Your task to perform on an android device: Add "usb-a to usb-b" to the cart on ebay.com Image 0: 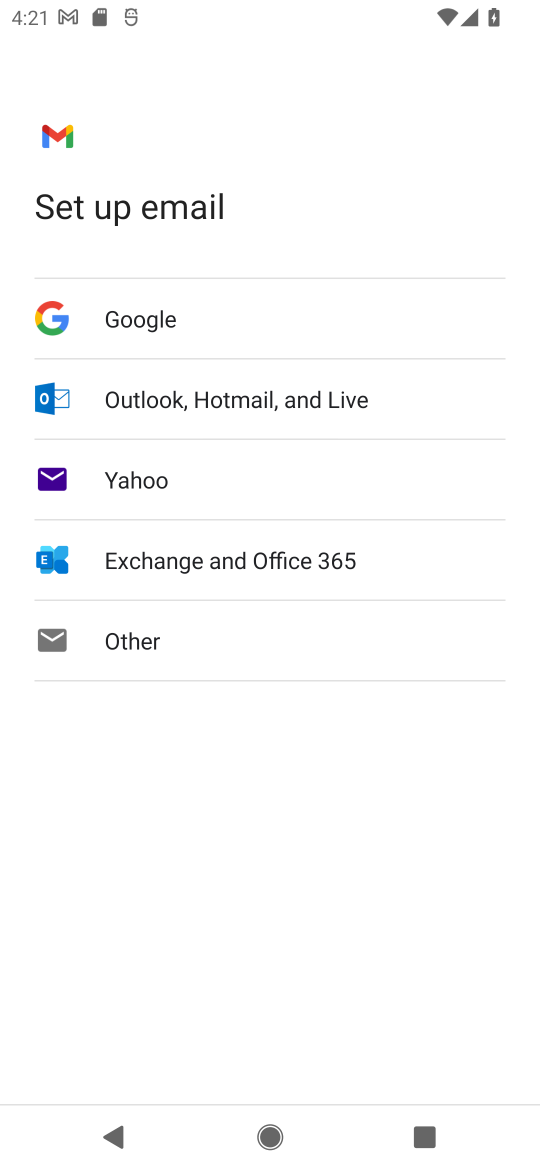
Step 0: press home button
Your task to perform on an android device: Add "usb-a to usb-b" to the cart on ebay.com Image 1: 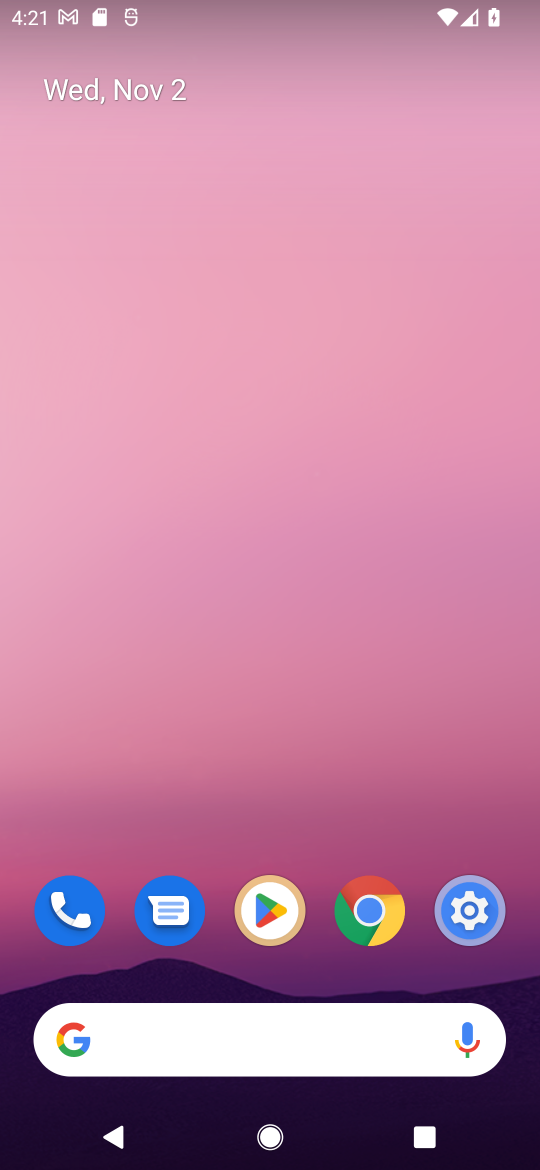
Step 1: click (251, 1017)
Your task to perform on an android device: Add "usb-a to usb-b" to the cart on ebay.com Image 2: 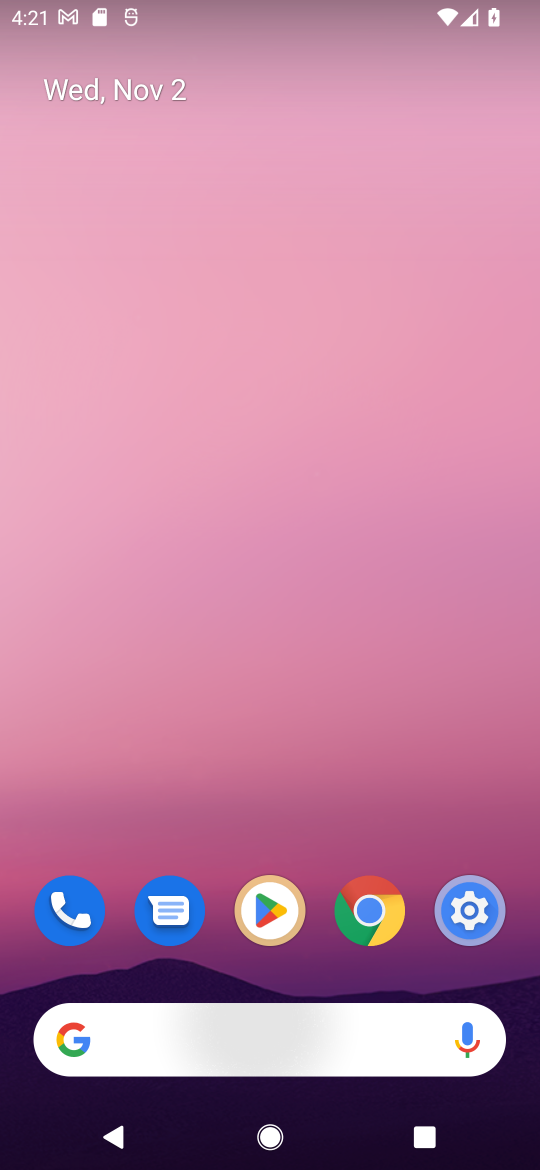
Step 2: click (249, 1018)
Your task to perform on an android device: Add "usb-a to usb-b" to the cart on ebay.com Image 3: 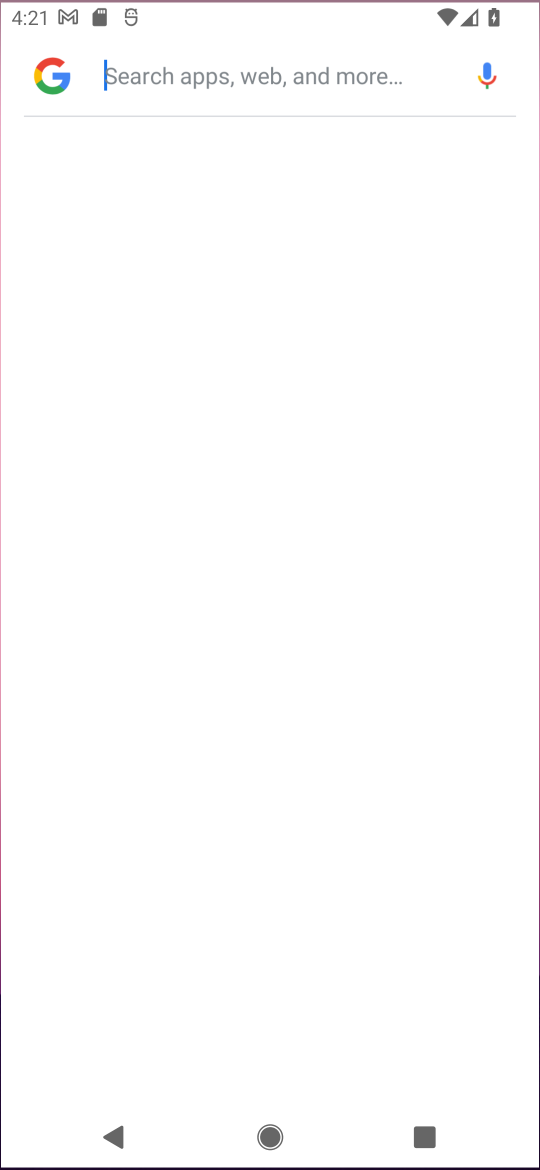
Step 3: click (249, 1045)
Your task to perform on an android device: Add "usb-a to usb-b" to the cart on ebay.com Image 4: 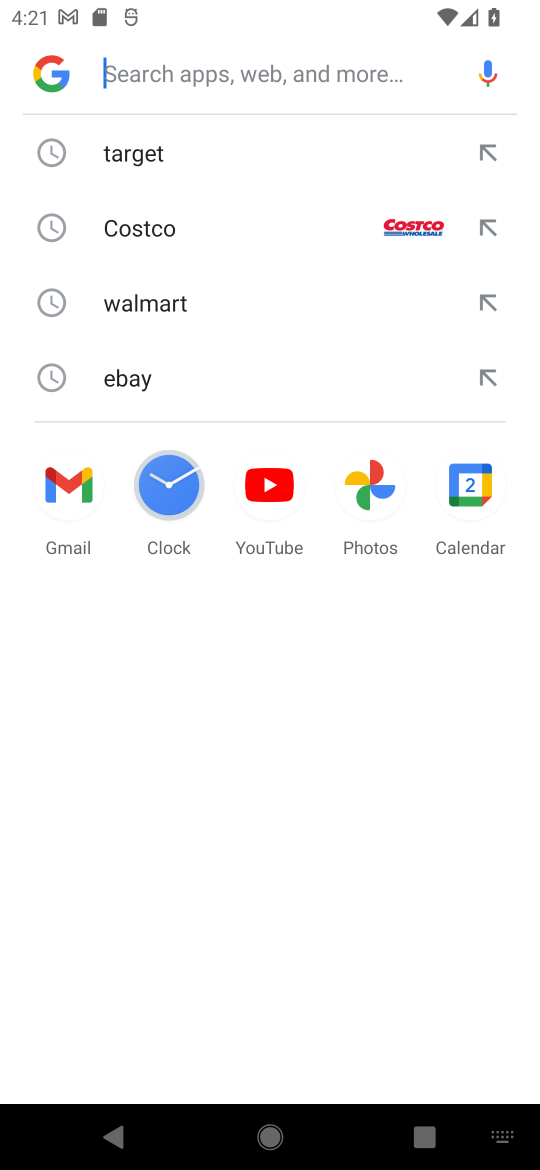
Step 4: type "ebay.com"
Your task to perform on an android device: Add "usb-a to usb-b" to the cart on ebay.com Image 5: 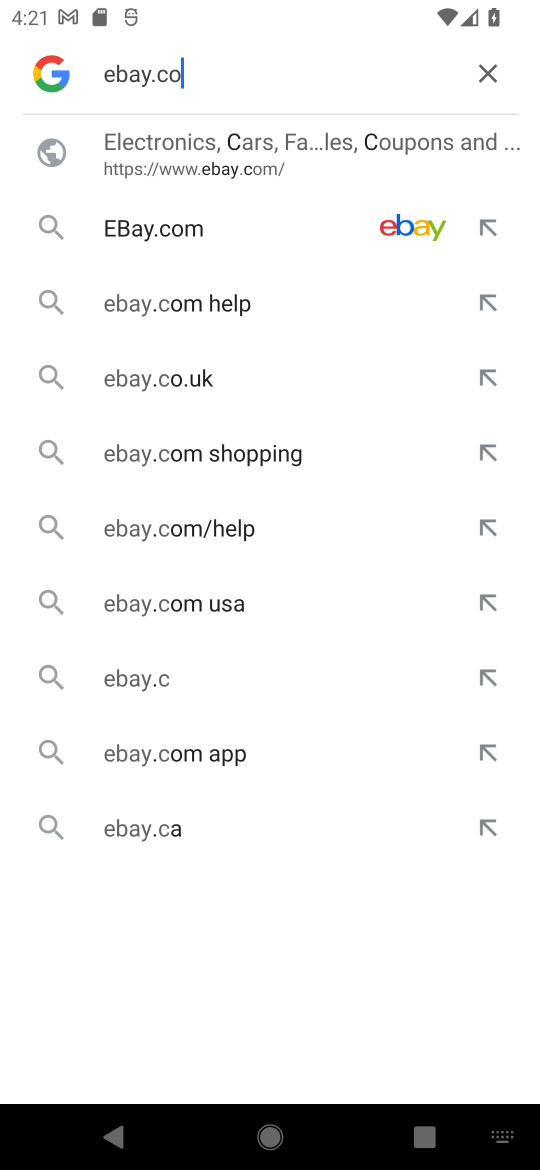
Step 5: type ""
Your task to perform on an android device: Add "usb-a to usb-b" to the cart on ebay.com Image 6: 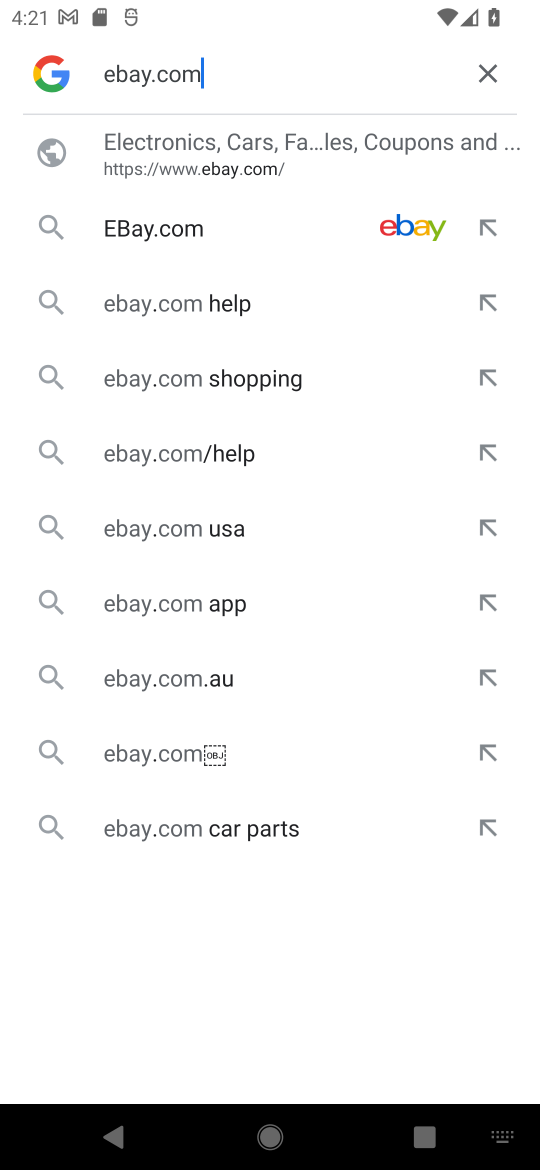
Step 6: press enter
Your task to perform on an android device: Add "usb-a to usb-b" to the cart on ebay.com Image 7: 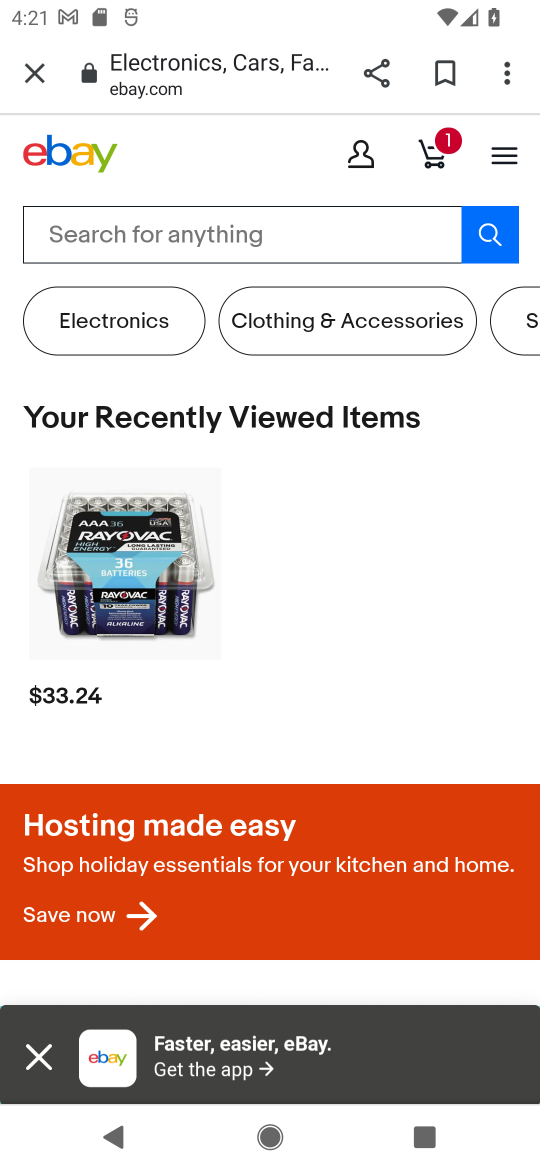
Step 7: click (210, 242)
Your task to perform on an android device: Add "usb-a to usb-b" to the cart on ebay.com Image 8: 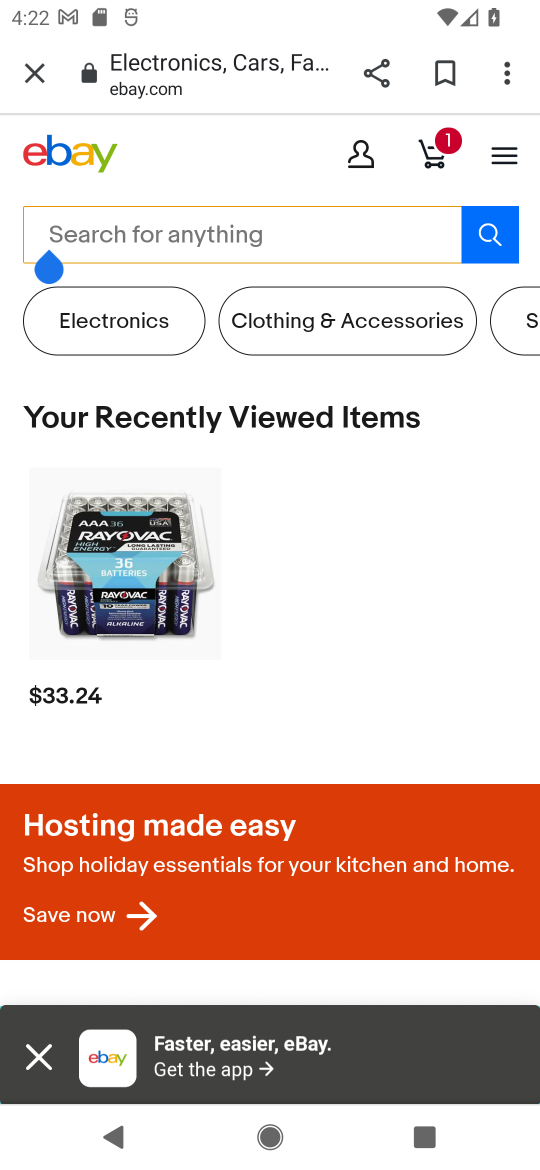
Step 8: type "usb-a to usb-b"
Your task to perform on an android device: Add "usb-a to usb-b" to the cart on ebay.com Image 9: 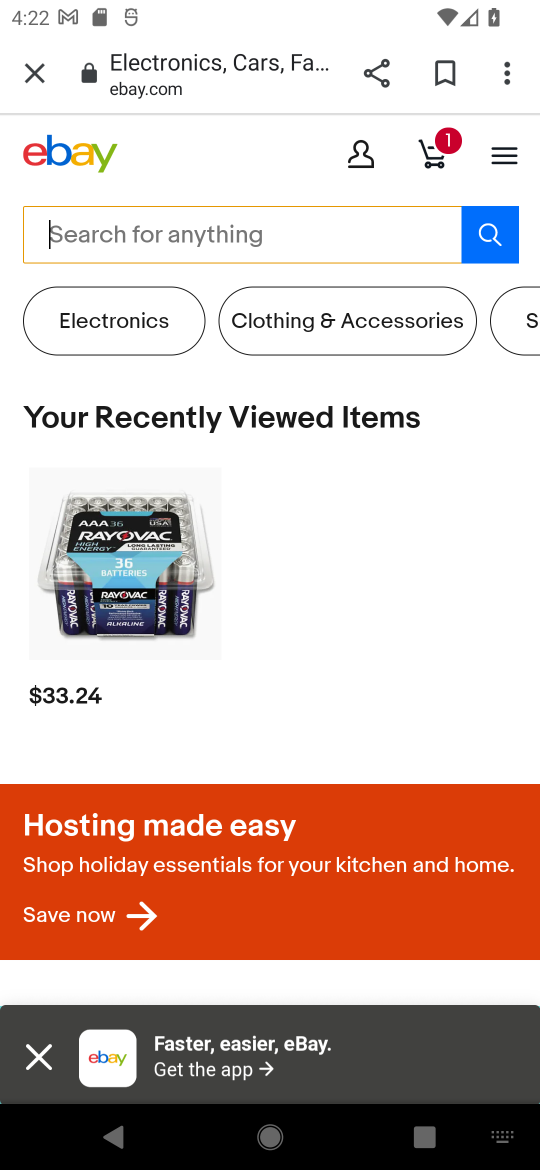
Step 9: type ""
Your task to perform on an android device: Add "usb-a to usb-b" to the cart on ebay.com Image 10: 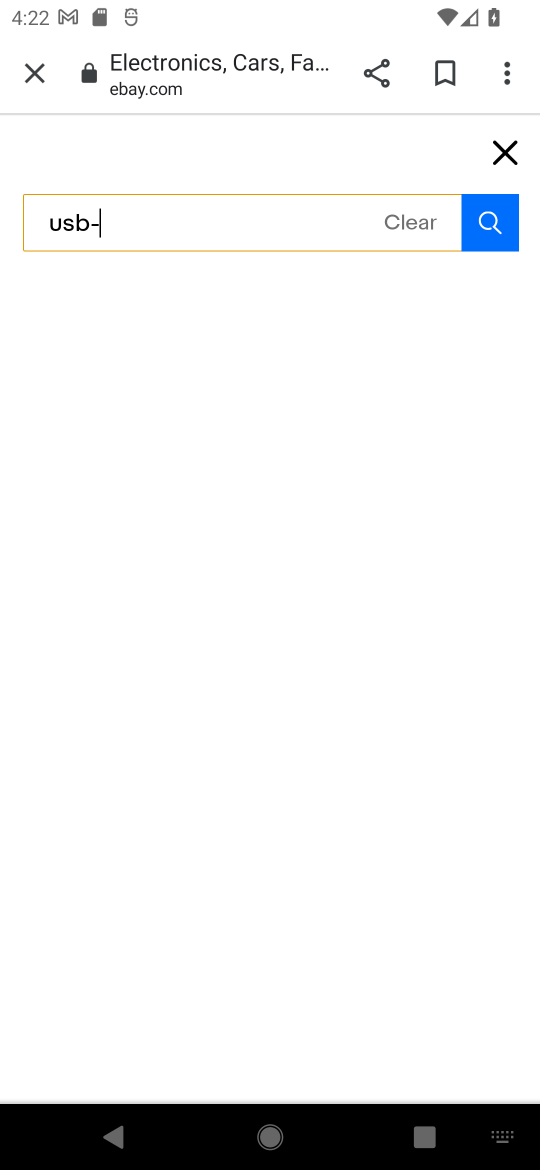
Step 10: press enter
Your task to perform on an android device: Add "usb-a to usb-b" to the cart on ebay.com Image 11: 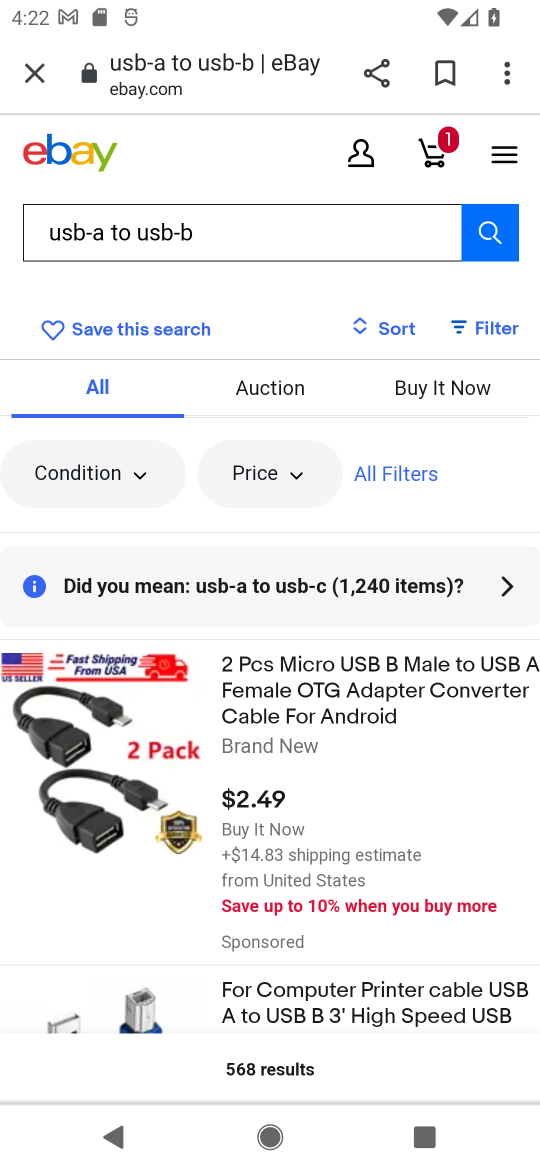
Step 11: click (342, 667)
Your task to perform on an android device: Add "usb-a to usb-b" to the cart on ebay.com Image 12: 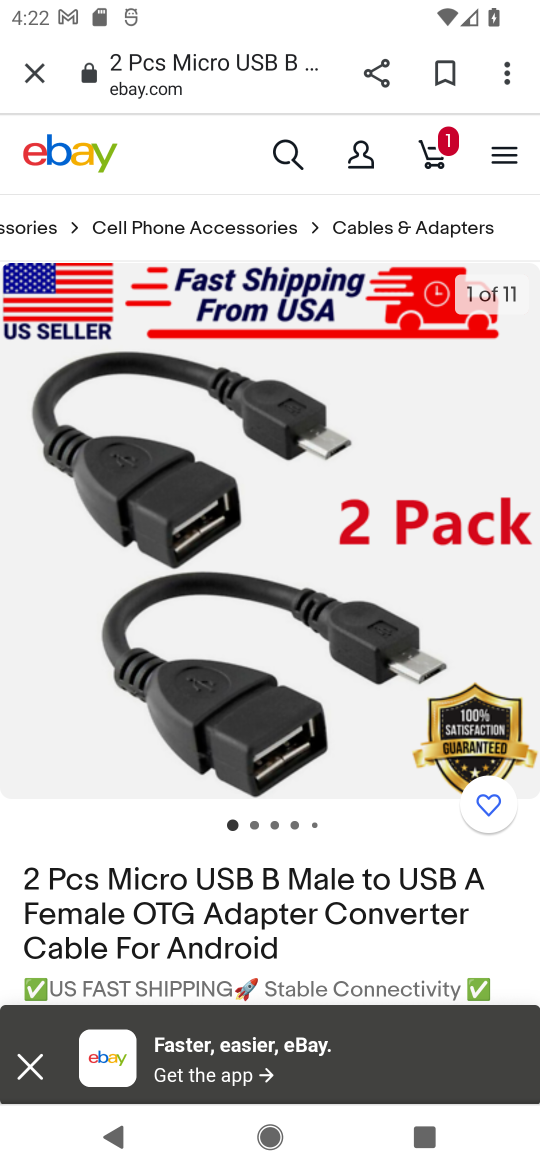
Step 12: drag from (229, 894) to (190, 400)
Your task to perform on an android device: Add "usb-a to usb-b" to the cart on ebay.com Image 13: 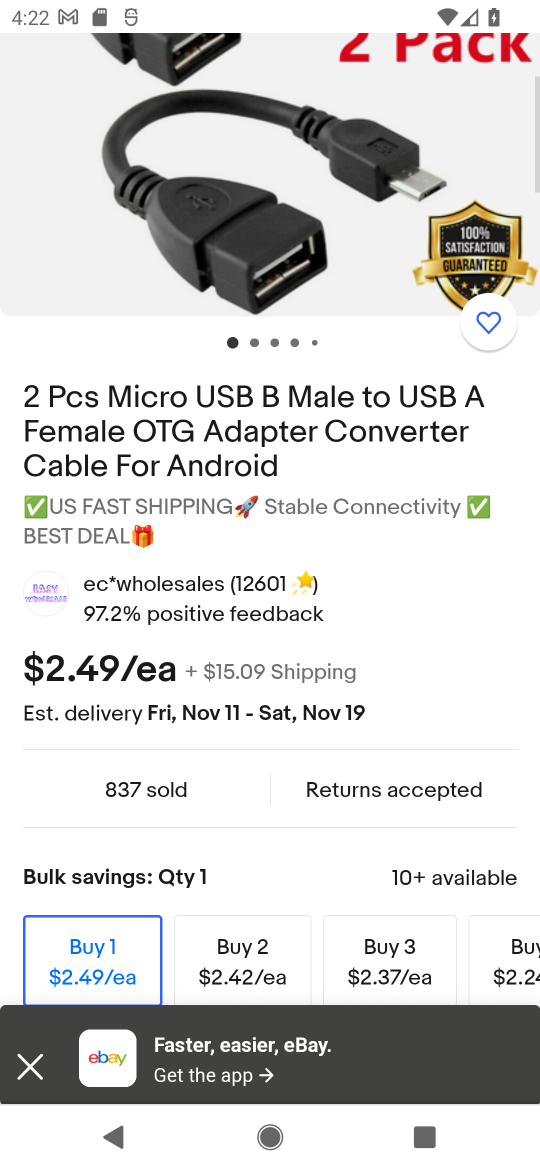
Step 13: drag from (353, 743) to (295, 321)
Your task to perform on an android device: Add "usb-a to usb-b" to the cart on ebay.com Image 14: 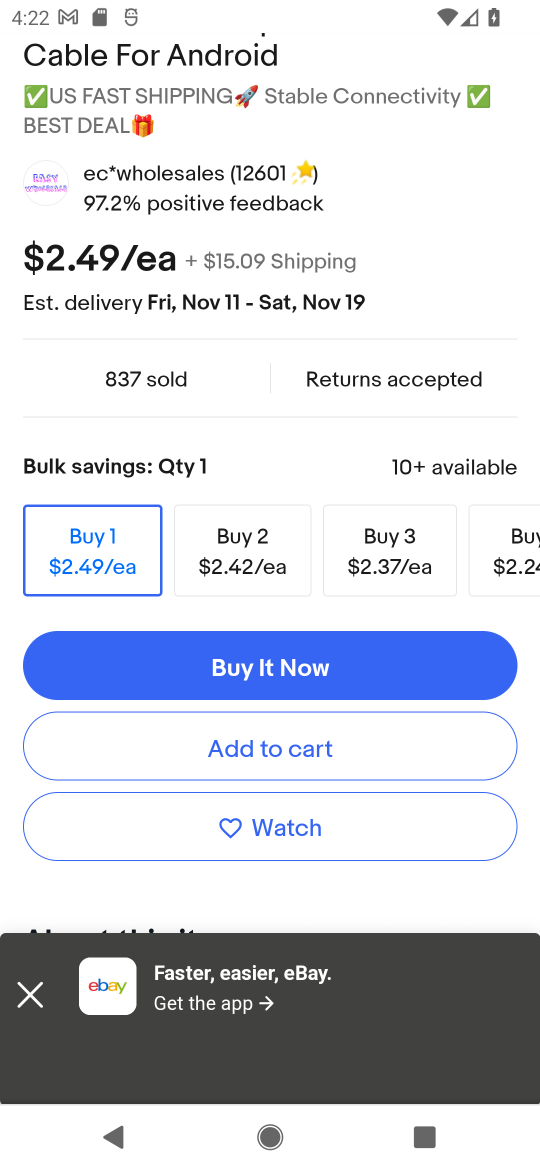
Step 14: click (257, 735)
Your task to perform on an android device: Add "usb-a to usb-b" to the cart on ebay.com Image 15: 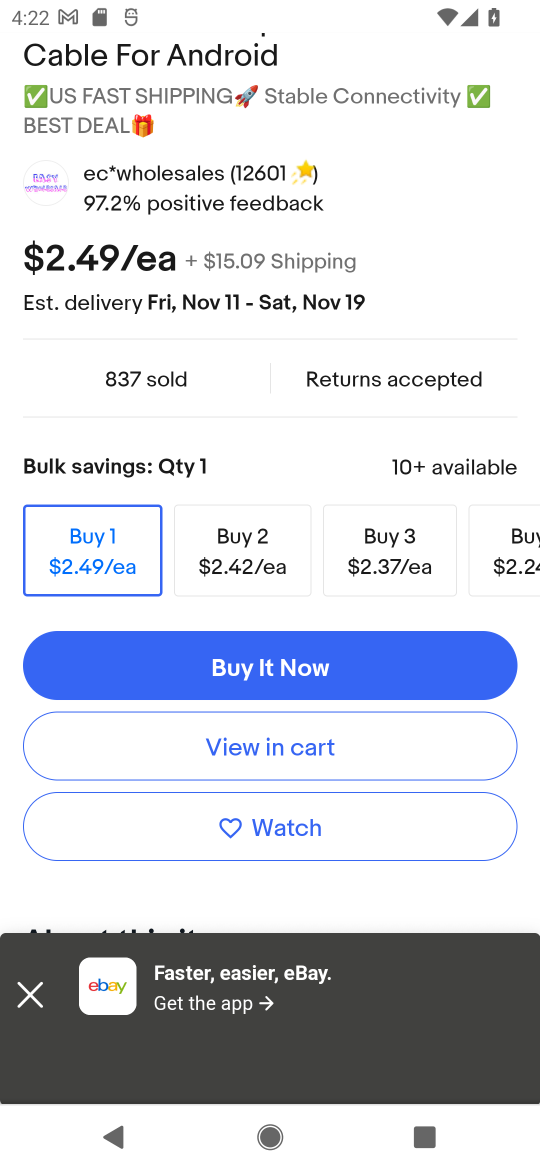
Step 15: click (294, 747)
Your task to perform on an android device: Add "usb-a to usb-b" to the cart on ebay.com Image 16: 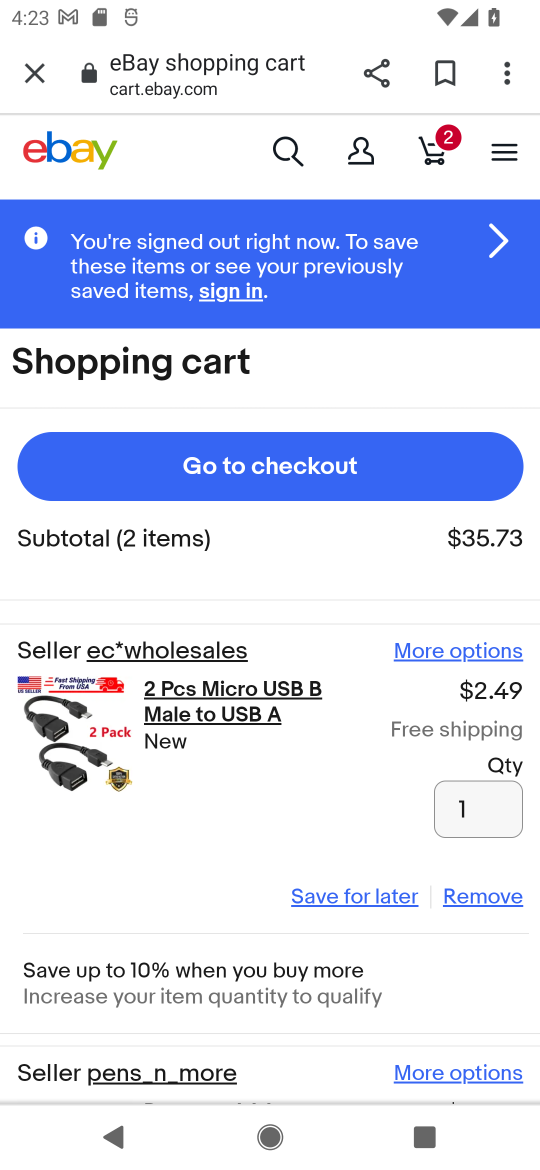
Step 16: task complete